Your task to perform on an android device: Open Google Chrome and click the shortcut for Amazon.com Image 0: 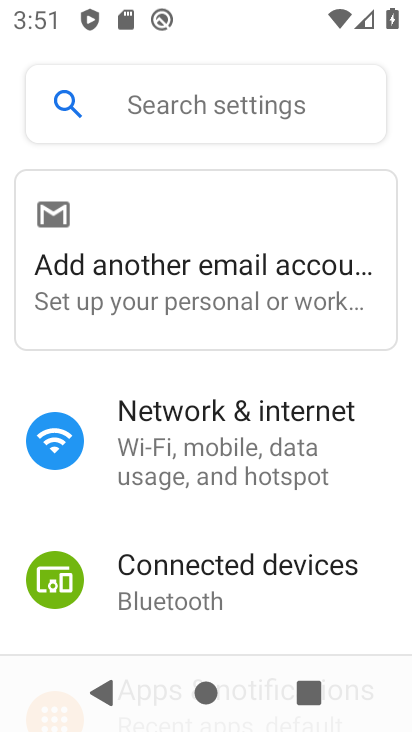
Step 0: press home button
Your task to perform on an android device: Open Google Chrome and click the shortcut for Amazon.com Image 1: 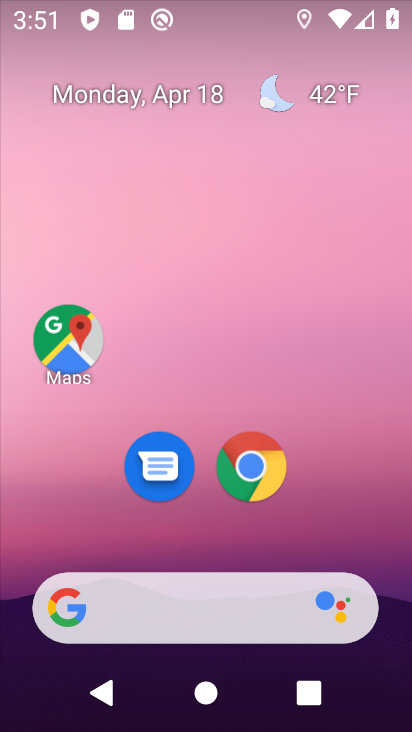
Step 1: click (249, 463)
Your task to perform on an android device: Open Google Chrome and click the shortcut for Amazon.com Image 2: 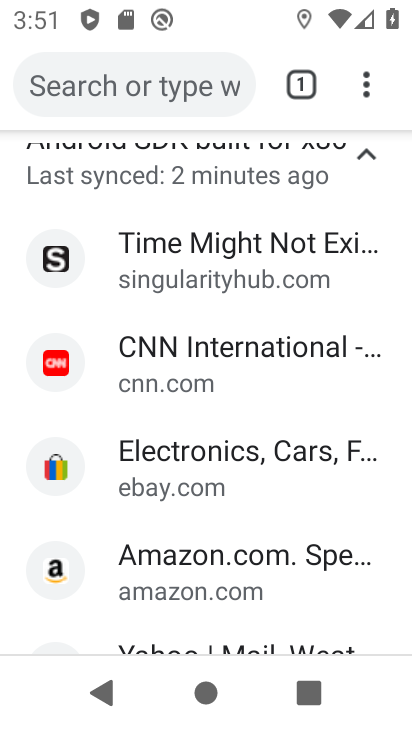
Step 2: click (357, 89)
Your task to perform on an android device: Open Google Chrome and click the shortcut for Amazon.com Image 3: 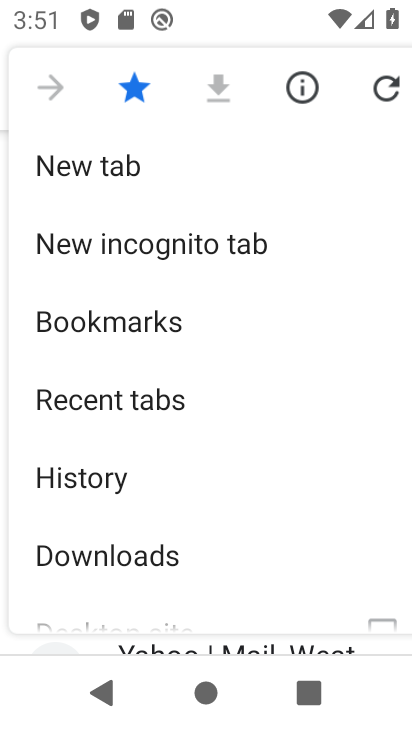
Step 3: click (80, 165)
Your task to perform on an android device: Open Google Chrome and click the shortcut for Amazon.com Image 4: 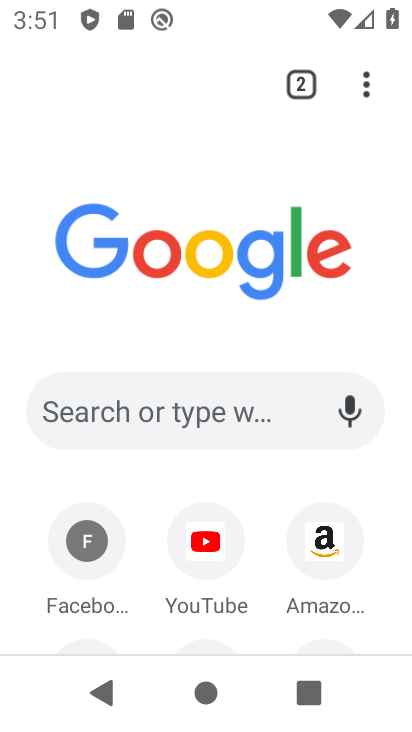
Step 4: click (326, 539)
Your task to perform on an android device: Open Google Chrome and click the shortcut for Amazon.com Image 5: 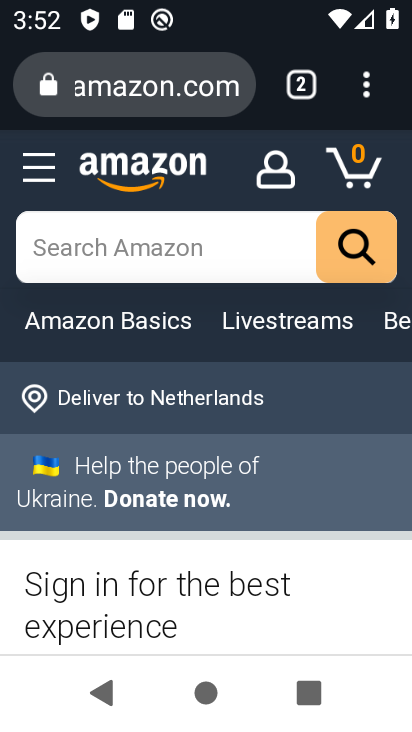
Step 5: task complete